Your task to perform on an android device: Search for the best custom wallets on Etsy. Image 0: 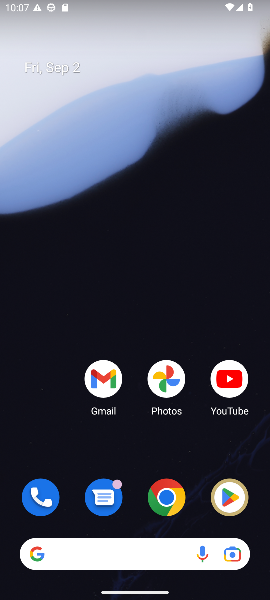
Step 0: click (159, 496)
Your task to perform on an android device: Search for the best custom wallets on Etsy. Image 1: 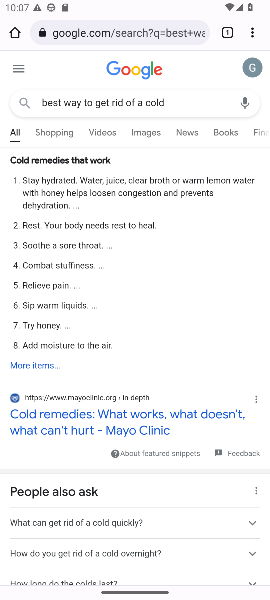
Step 1: click (144, 24)
Your task to perform on an android device: Search for the best custom wallets on Etsy. Image 2: 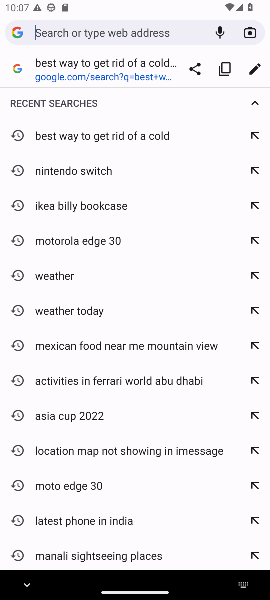
Step 2: type "etsy"
Your task to perform on an android device: Search for the best custom wallets on Etsy. Image 3: 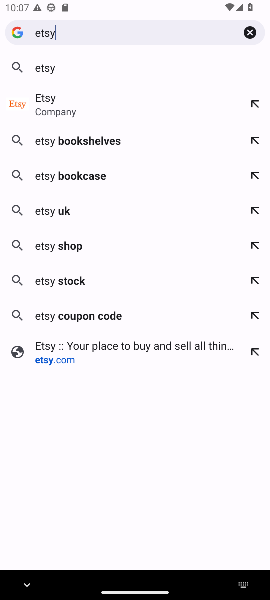
Step 3: click (94, 355)
Your task to perform on an android device: Search for the best custom wallets on Etsy. Image 4: 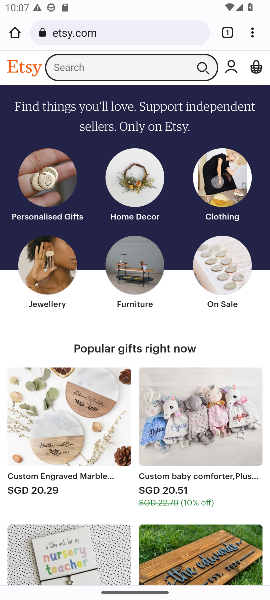
Step 4: click (101, 73)
Your task to perform on an android device: Search for the best custom wallets on Etsy. Image 5: 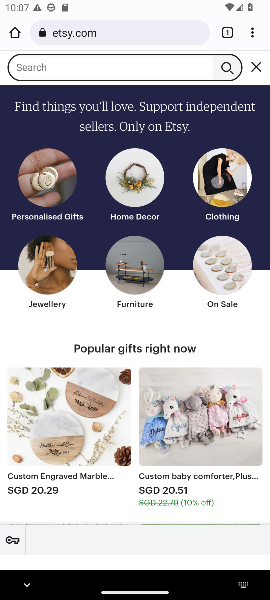
Step 5: type "best custom wallets"
Your task to perform on an android device: Search for the best custom wallets on Etsy. Image 6: 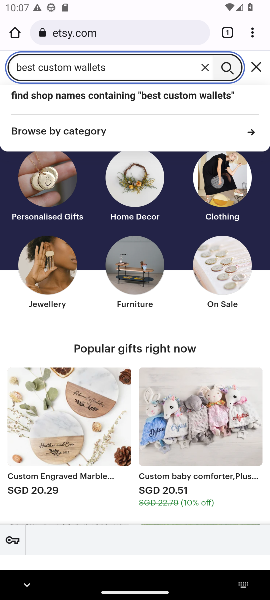
Step 6: press enter
Your task to perform on an android device: Search for the best custom wallets on Etsy. Image 7: 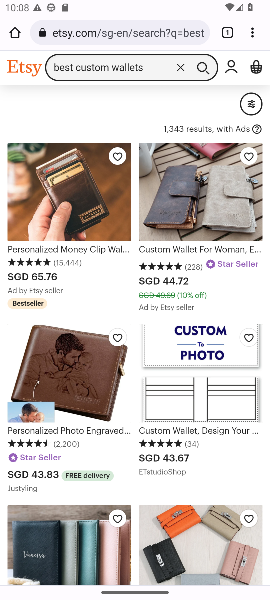
Step 7: task complete